Your task to perform on an android device: make emails show in primary in the gmail app Image 0: 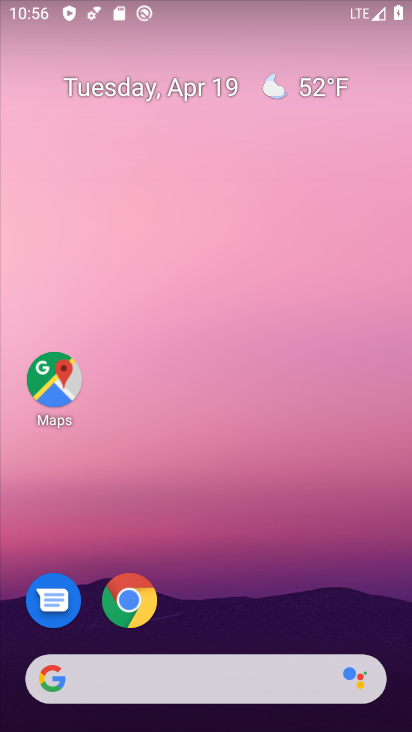
Step 0: drag from (234, 605) to (228, 18)
Your task to perform on an android device: make emails show in primary in the gmail app Image 1: 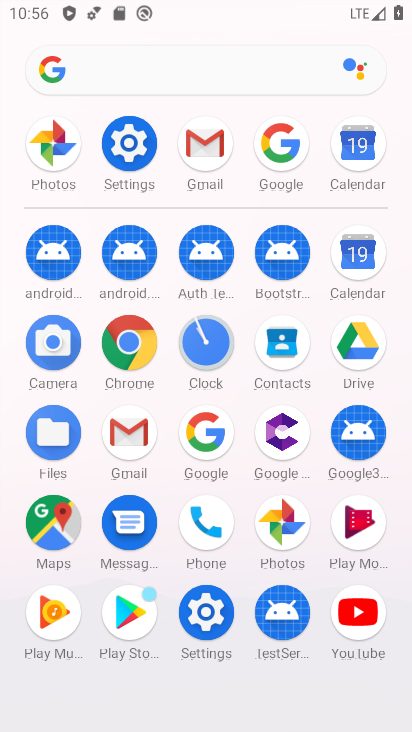
Step 1: click (134, 448)
Your task to perform on an android device: make emails show in primary in the gmail app Image 2: 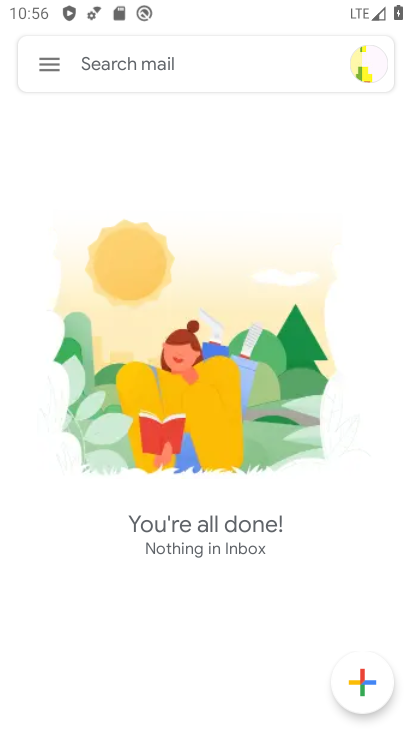
Step 2: click (45, 77)
Your task to perform on an android device: make emails show in primary in the gmail app Image 3: 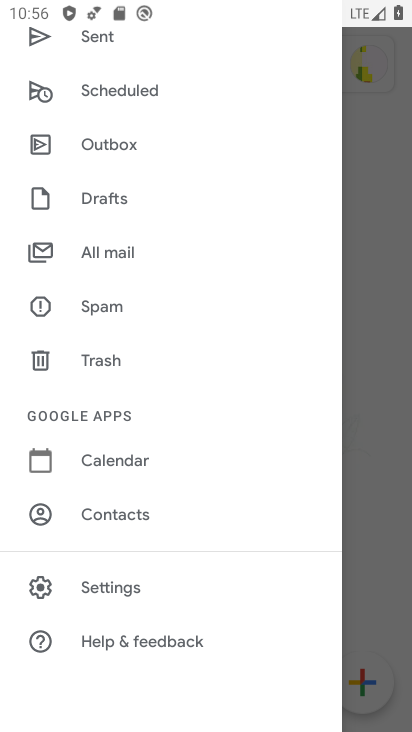
Step 3: click (127, 586)
Your task to perform on an android device: make emails show in primary in the gmail app Image 4: 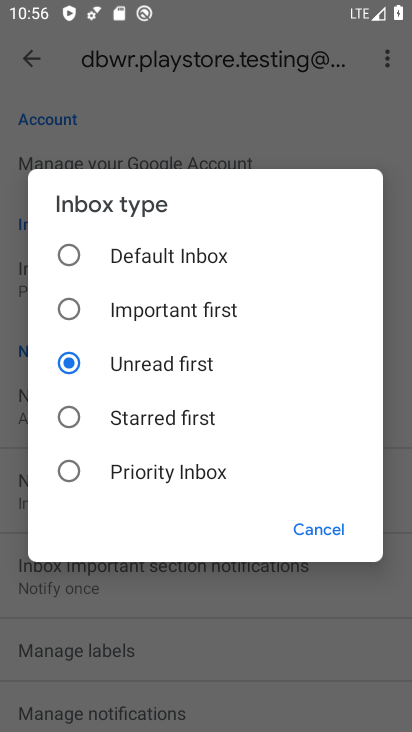
Step 4: click (172, 606)
Your task to perform on an android device: make emails show in primary in the gmail app Image 5: 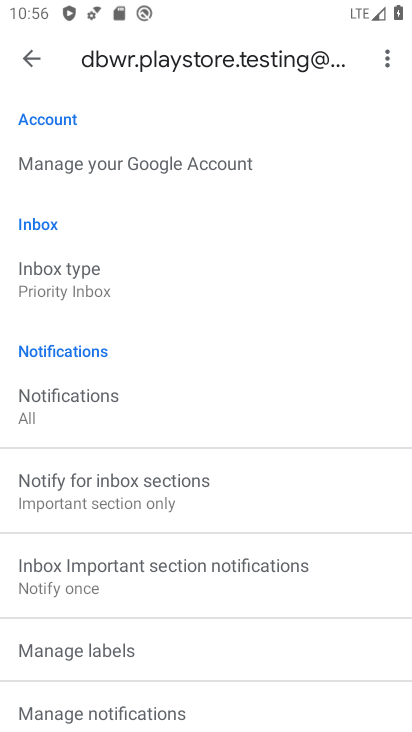
Step 5: click (106, 295)
Your task to perform on an android device: make emails show in primary in the gmail app Image 6: 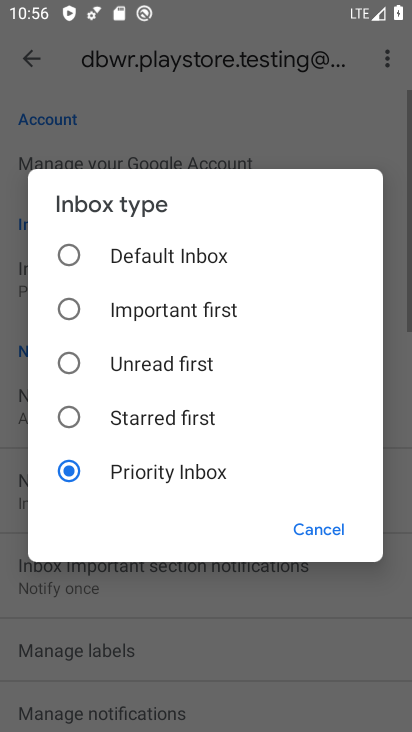
Step 6: click (96, 238)
Your task to perform on an android device: make emails show in primary in the gmail app Image 7: 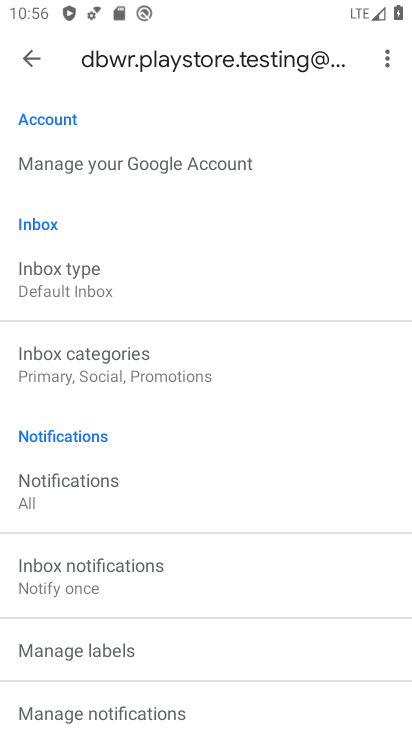
Step 7: click (25, 47)
Your task to perform on an android device: make emails show in primary in the gmail app Image 8: 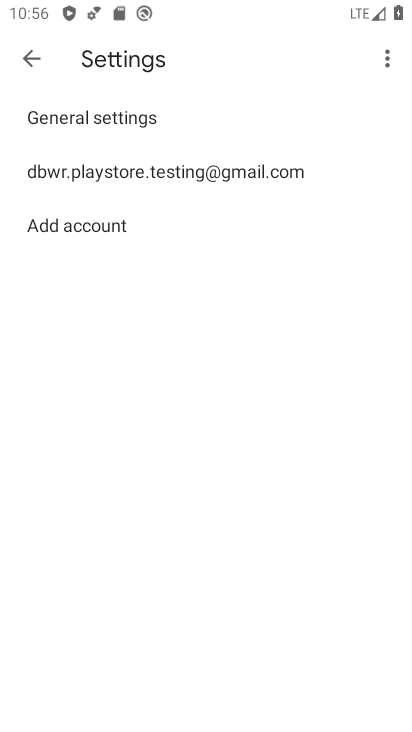
Step 8: click (30, 48)
Your task to perform on an android device: make emails show in primary in the gmail app Image 9: 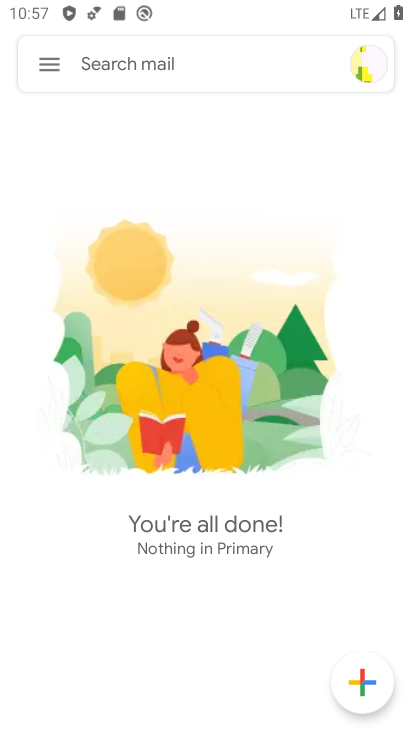
Step 9: task complete